Your task to perform on an android device: Open network settings Image 0: 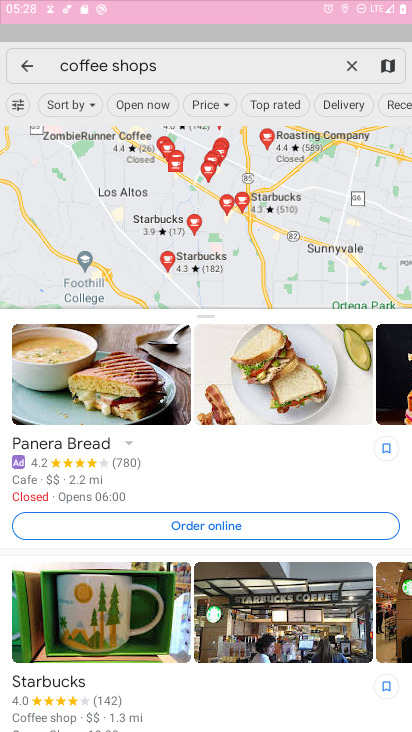
Step 0: press home button
Your task to perform on an android device: Open network settings Image 1: 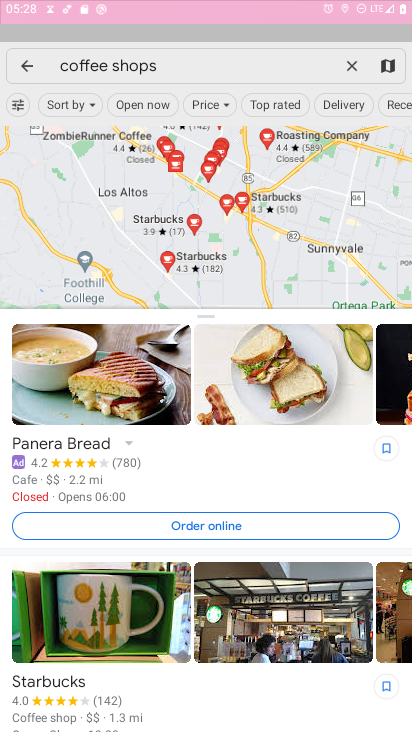
Step 1: click (304, 117)
Your task to perform on an android device: Open network settings Image 2: 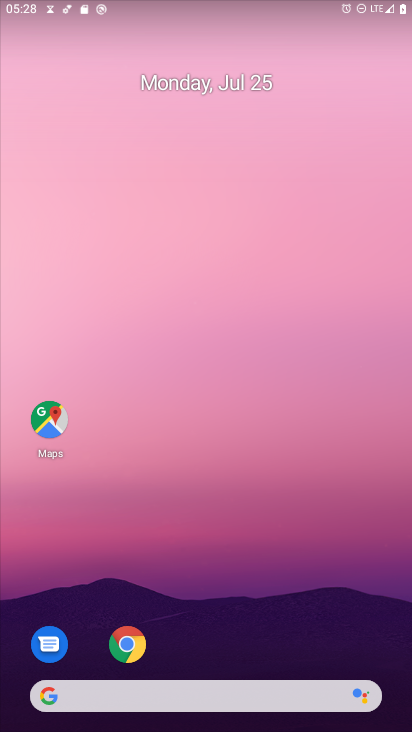
Step 2: drag from (304, 633) to (286, 105)
Your task to perform on an android device: Open network settings Image 3: 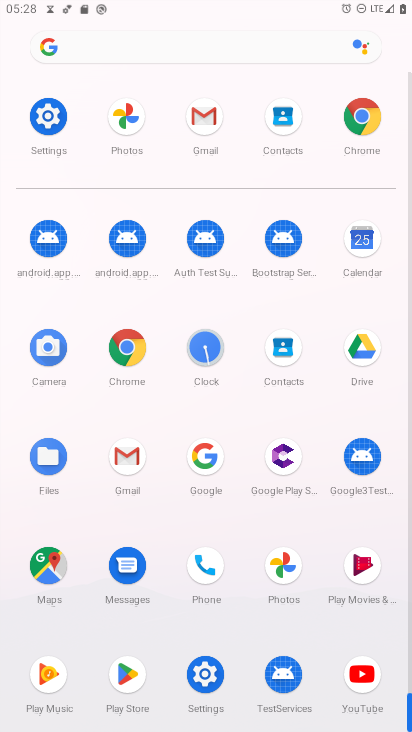
Step 3: click (47, 115)
Your task to perform on an android device: Open network settings Image 4: 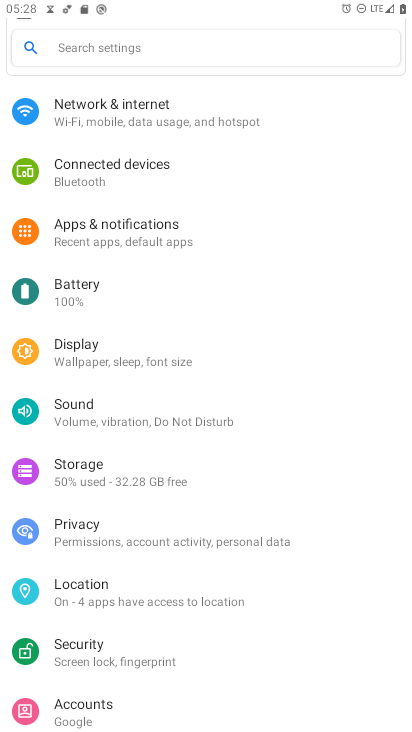
Step 4: click (106, 112)
Your task to perform on an android device: Open network settings Image 5: 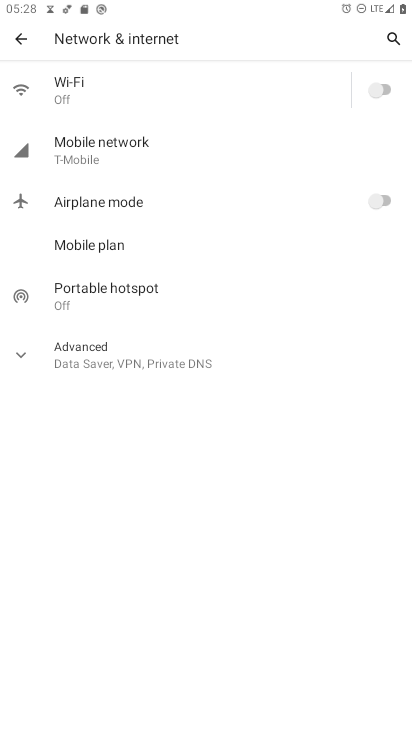
Step 5: task complete